Your task to perform on an android device: check data usage Image 0: 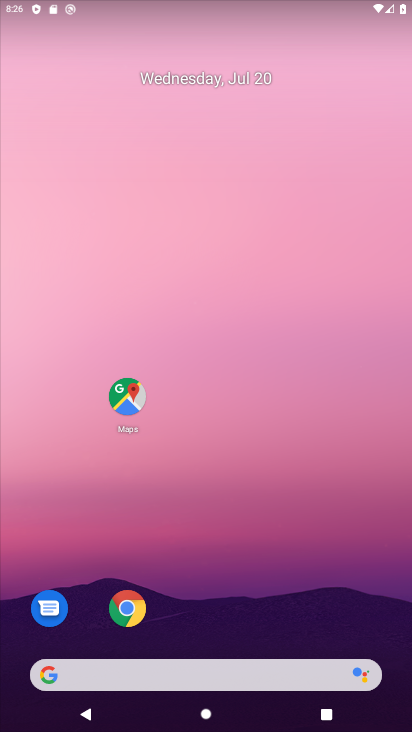
Step 0: drag from (252, 96) to (254, 55)
Your task to perform on an android device: check data usage Image 1: 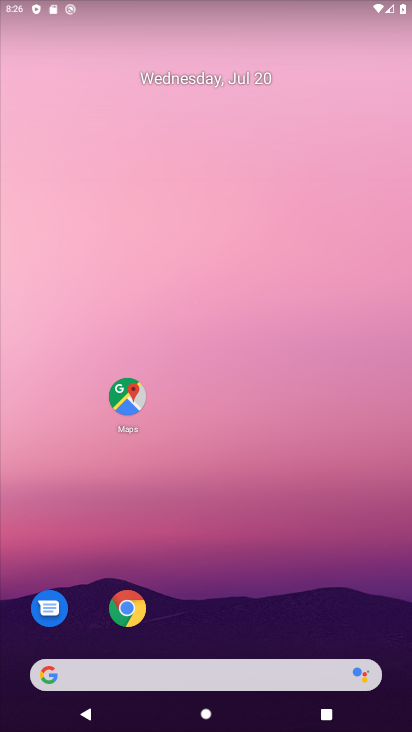
Step 1: drag from (237, 614) to (225, 65)
Your task to perform on an android device: check data usage Image 2: 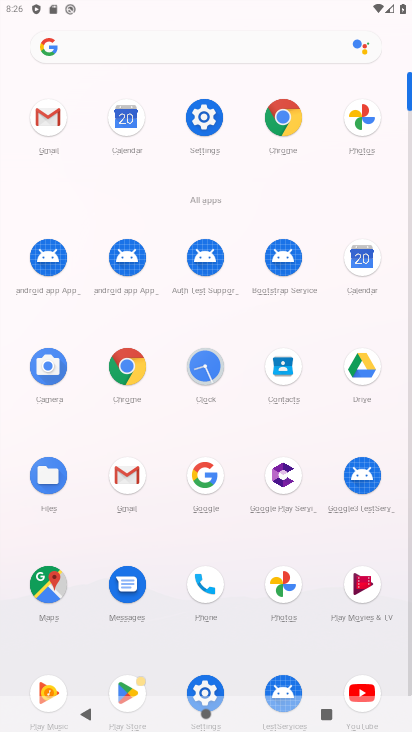
Step 2: click (204, 132)
Your task to perform on an android device: check data usage Image 3: 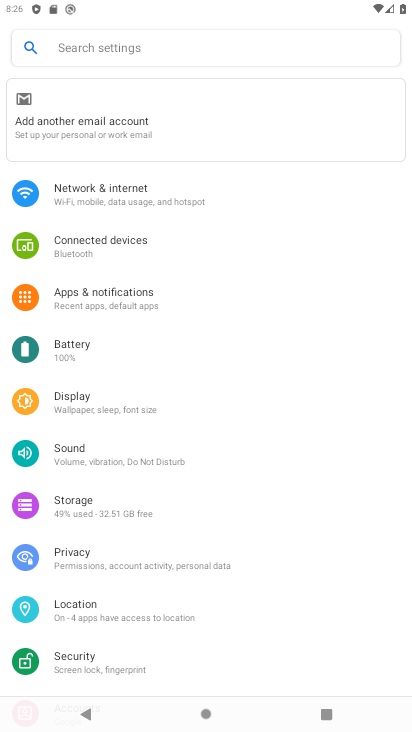
Step 3: drag from (174, 486) to (194, 277)
Your task to perform on an android device: check data usage Image 4: 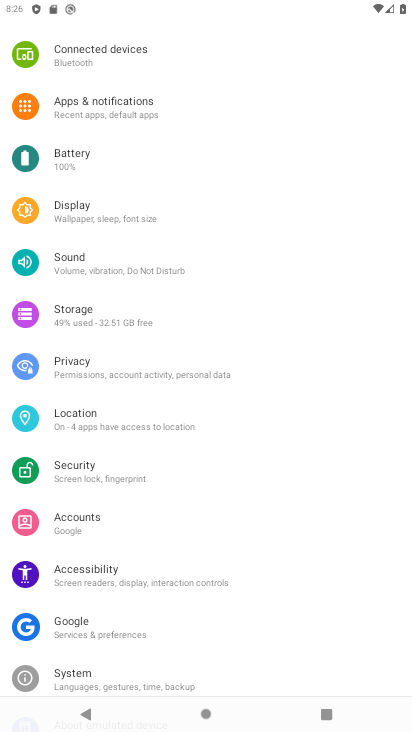
Step 4: drag from (161, 95) to (176, 356)
Your task to perform on an android device: check data usage Image 5: 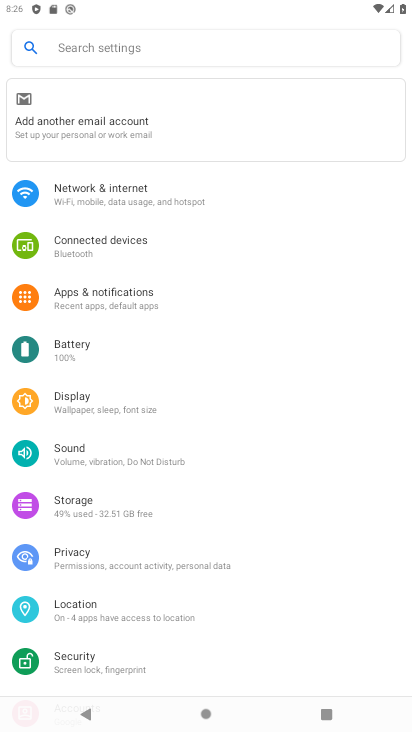
Step 5: click (158, 199)
Your task to perform on an android device: check data usage Image 6: 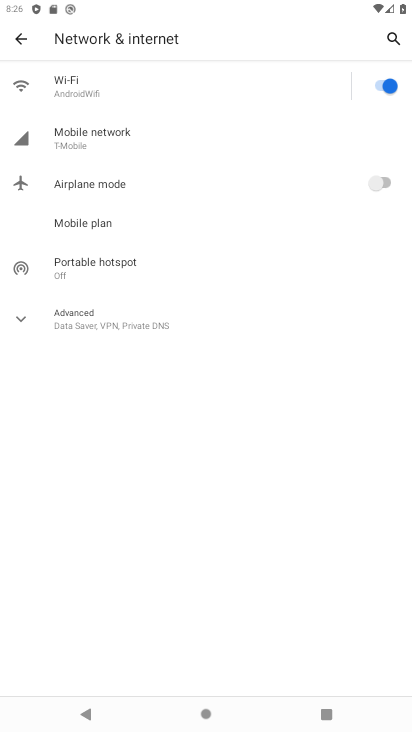
Step 6: click (127, 135)
Your task to perform on an android device: check data usage Image 7: 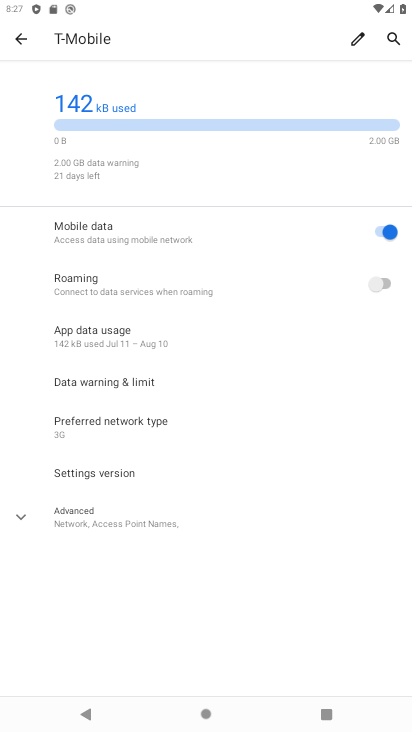
Step 7: click (168, 328)
Your task to perform on an android device: check data usage Image 8: 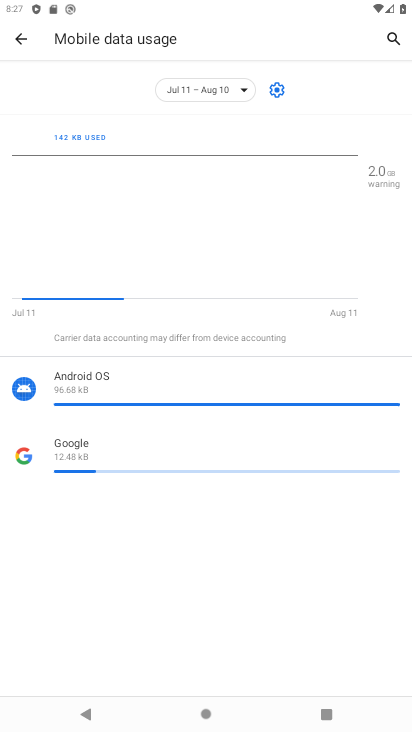
Step 8: task complete